Your task to perform on an android device: Open Youtube and go to "Your channel" Image 0: 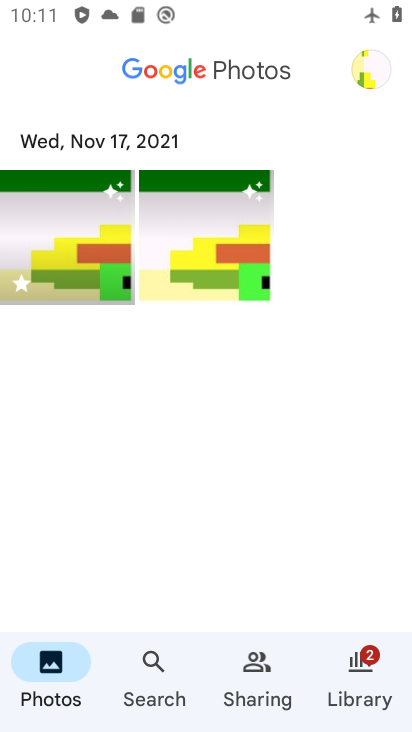
Step 0: press home button
Your task to perform on an android device: Open Youtube and go to "Your channel" Image 1: 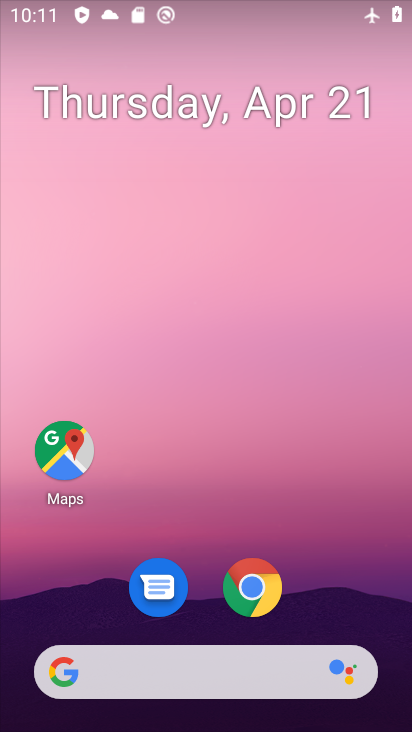
Step 1: drag from (339, 587) to (358, 74)
Your task to perform on an android device: Open Youtube and go to "Your channel" Image 2: 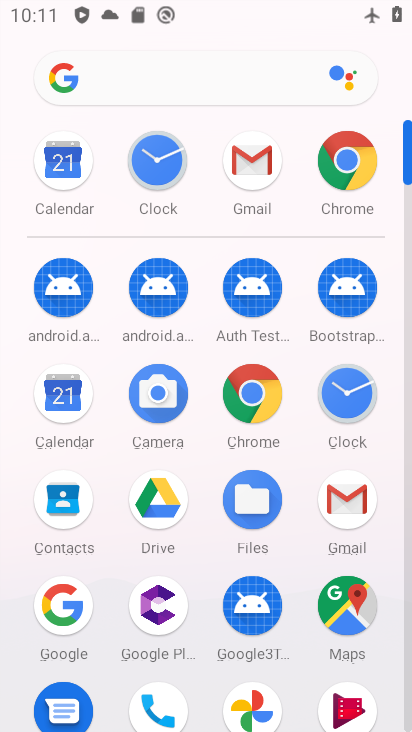
Step 2: drag from (388, 537) to (388, 216)
Your task to perform on an android device: Open Youtube and go to "Your channel" Image 3: 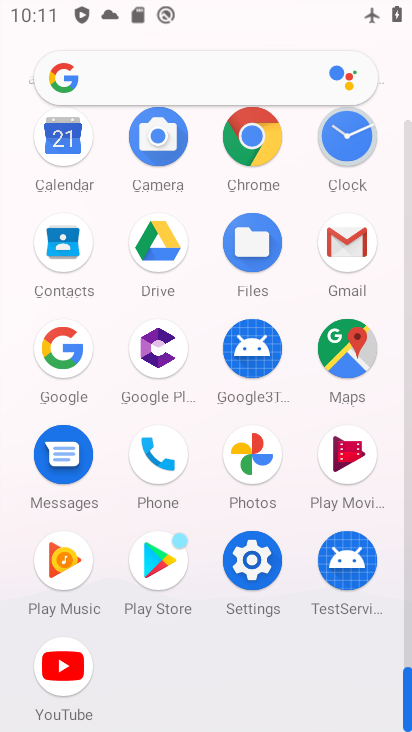
Step 3: click (72, 670)
Your task to perform on an android device: Open Youtube and go to "Your channel" Image 4: 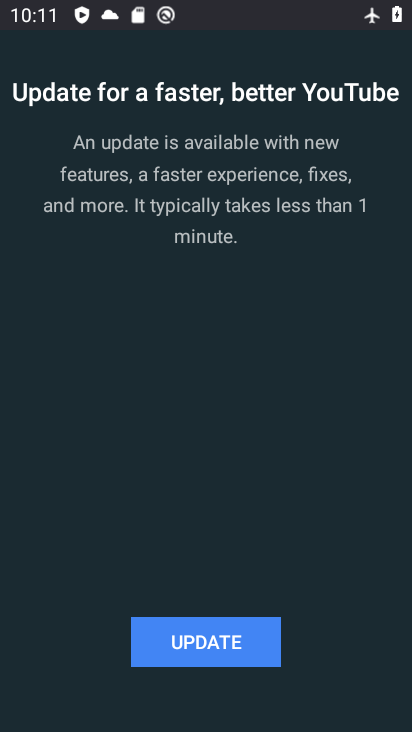
Step 4: click (181, 645)
Your task to perform on an android device: Open Youtube and go to "Your channel" Image 5: 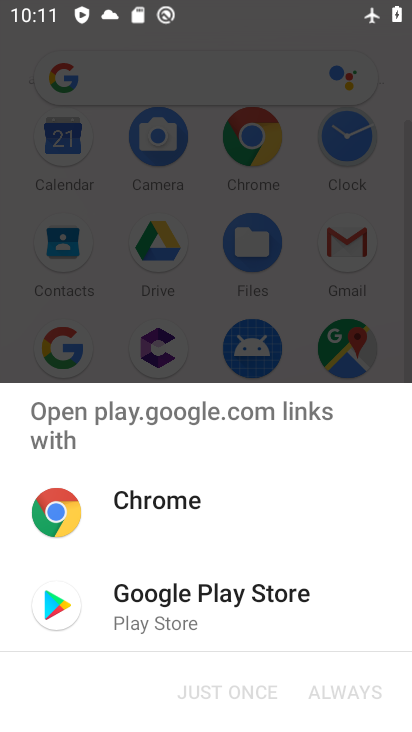
Step 5: click (175, 613)
Your task to perform on an android device: Open Youtube and go to "Your channel" Image 6: 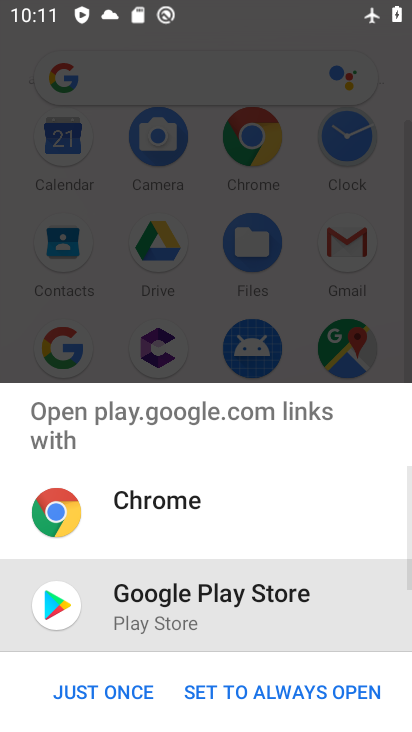
Step 6: click (113, 690)
Your task to perform on an android device: Open Youtube and go to "Your channel" Image 7: 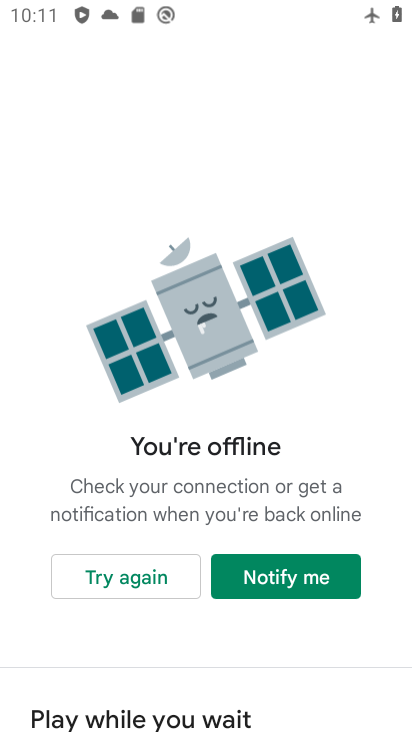
Step 7: task complete